Your task to perform on an android device: change text size in settings app Image 0: 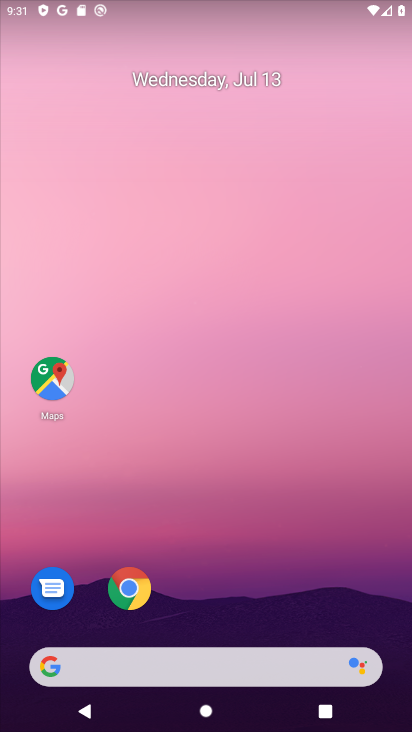
Step 0: drag from (195, 601) to (253, 106)
Your task to perform on an android device: change text size in settings app Image 1: 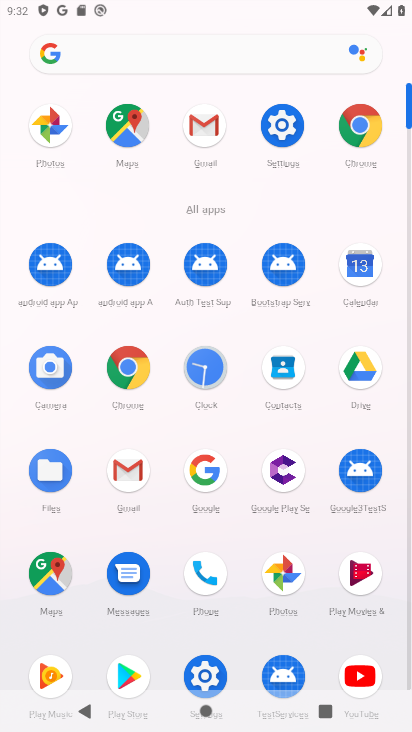
Step 1: click (283, 126)
Your task to perform on an android device: change text size in settings app Image 2: 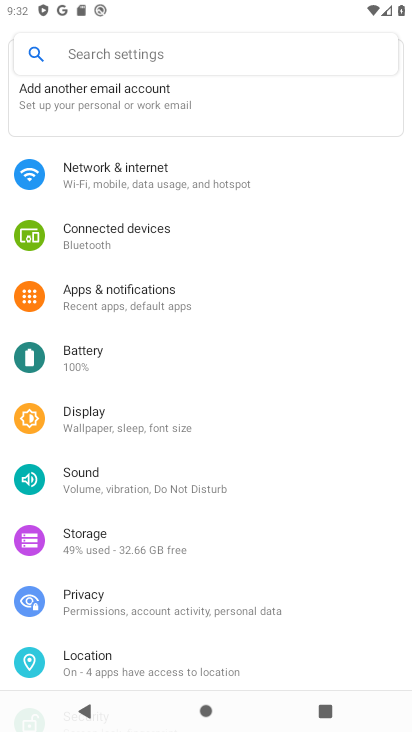
Step 2: click (151, 424)
Your task to perform on an android device: change text size in settings app Image 3: 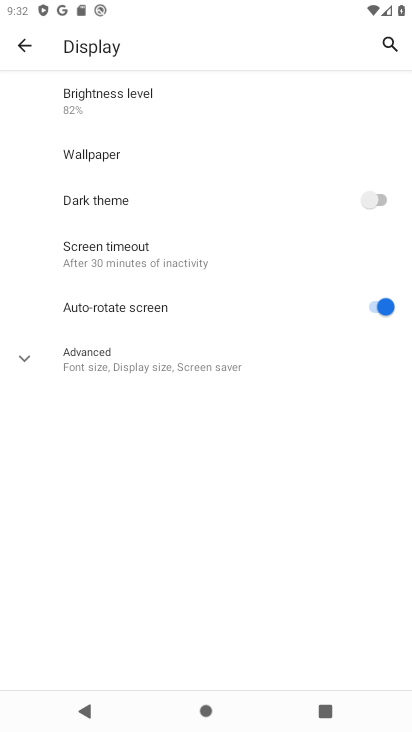
Step 3: click (71, 348)
Your task to perform on an android device: change text size in settings app Image 4: 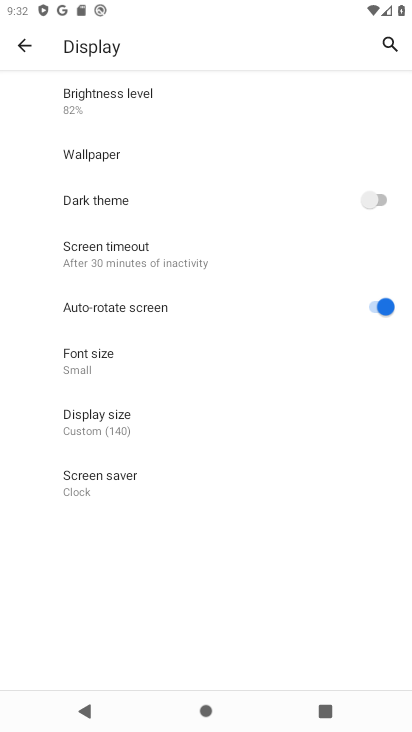
Step 4: click (101, 365)
Your task to perform on an android device: change text size in settings app Image 5: 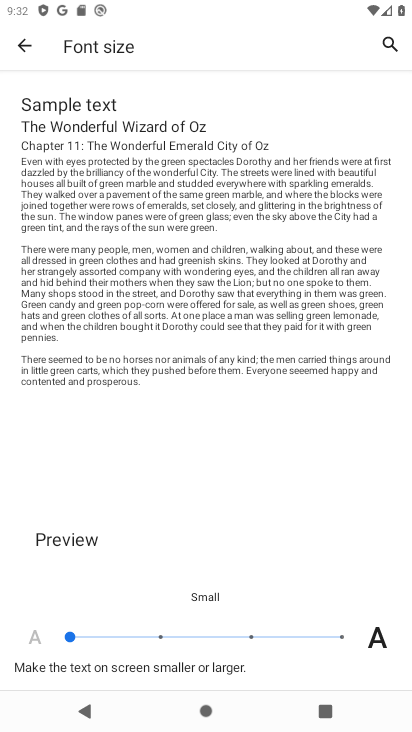
Step 5: task complete